Your task to perform on an android device: Open Chrome and go to settings Image 0: 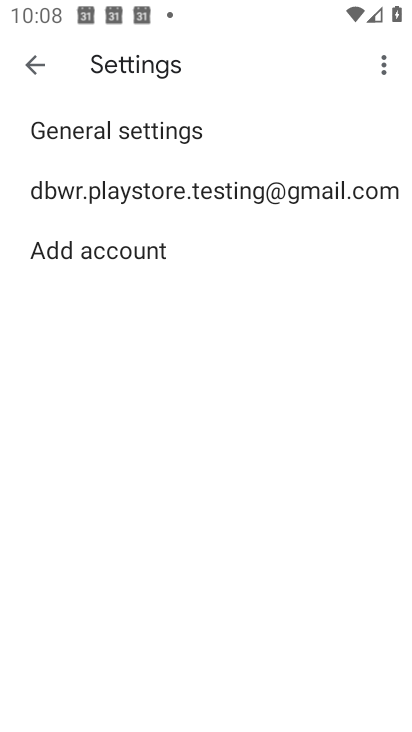
Step 0: press home button
Your task to perform on an android device: Open Chrome and go to settings Image 1: 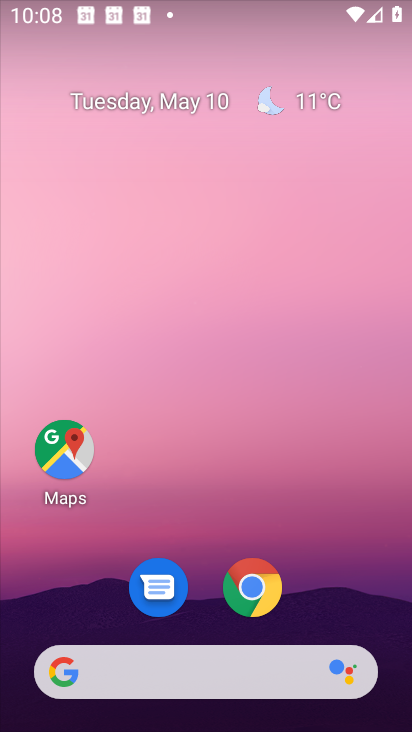
Step 1: drag from (389, 605) to (372, 99)
Your task to perform on an android device: Open Chrome and go to settings Image 2: 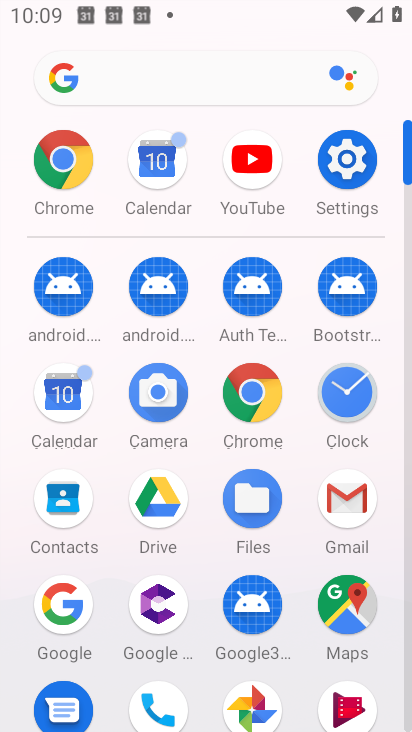
Step 2: click (273, 386)
Your task to perform on an android device: Open Chrome and go to settings Image 3: 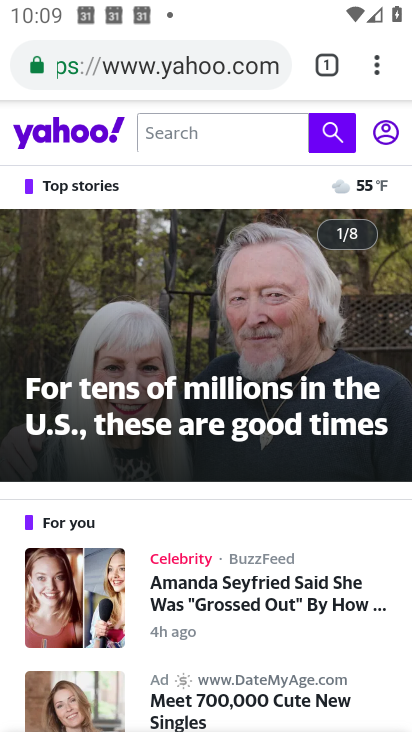
Step 3: task complete